Your task to perform on an android device: Go to notification settings Image 0: 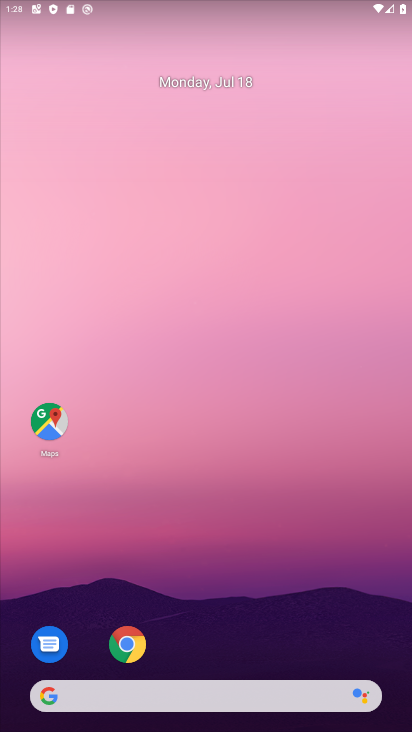
Step 0: drag from (357, 650) to (311, 89)
Your task to perform on an android device: Go to notification settings Image 1: 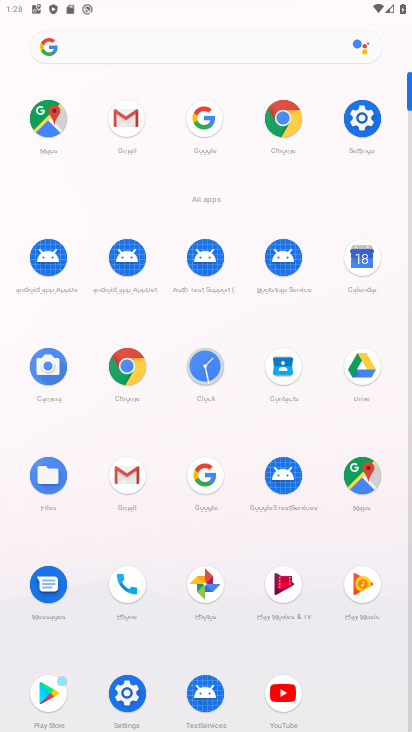
Step 1: click (360, 119)
Your task to perform on an android device: Go to notification settings Image 2: 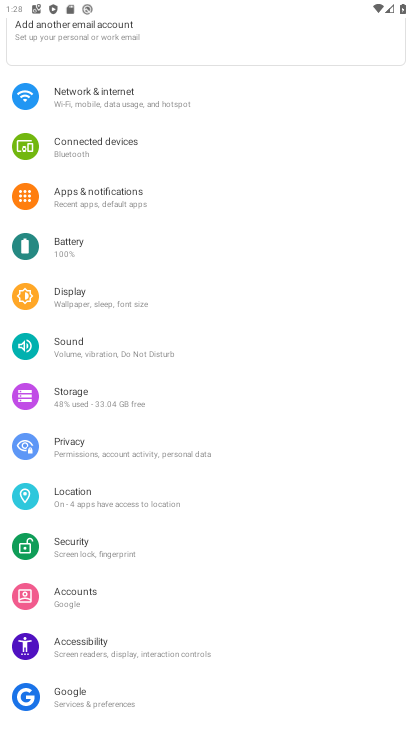
Step 2: click (75, 185)
Your task to perform on an android device: Go to notification settings Image 3: 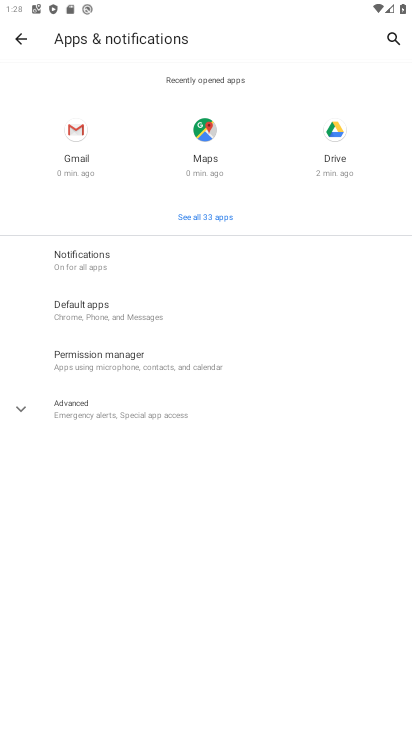
Step 3: click (91, 256)
Your task to perform on an android device: Go to notification settings Image 4: 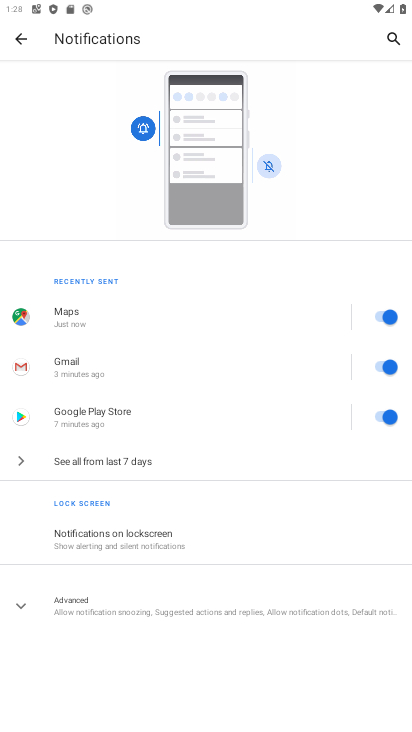
Step 4: task complete